Your task to perform on an android device: toggle sleep mode Image 0: 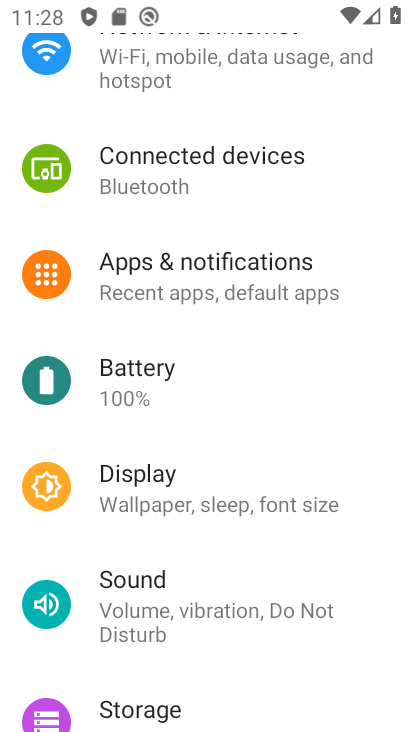
Step 0: click (175, 513)
Your task to perform on an android device: toggle sleep mode Image 1: 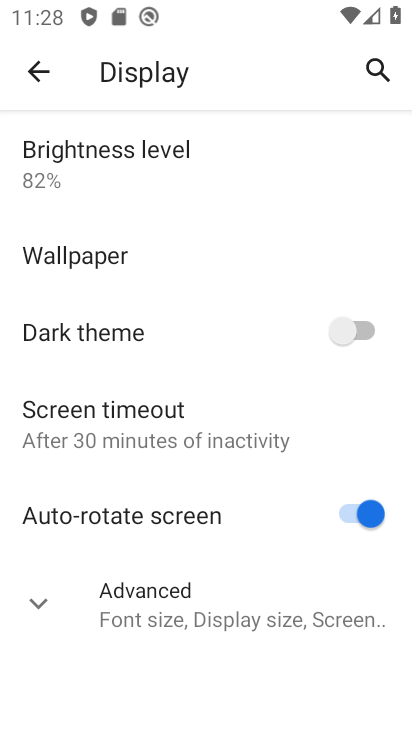
Step 1: click (161, 628)
Your task to perform on an android device: toggle sleep mode Image 2: 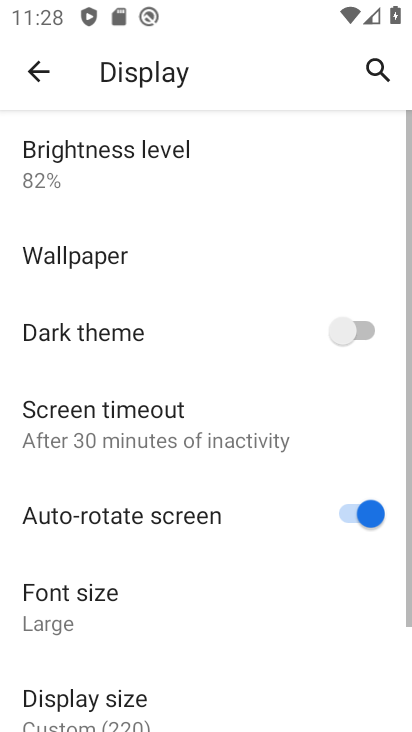
Step 2: task complete